Your task to perform on an android device: Search for vegetarian restaurants on Maps Image 0: 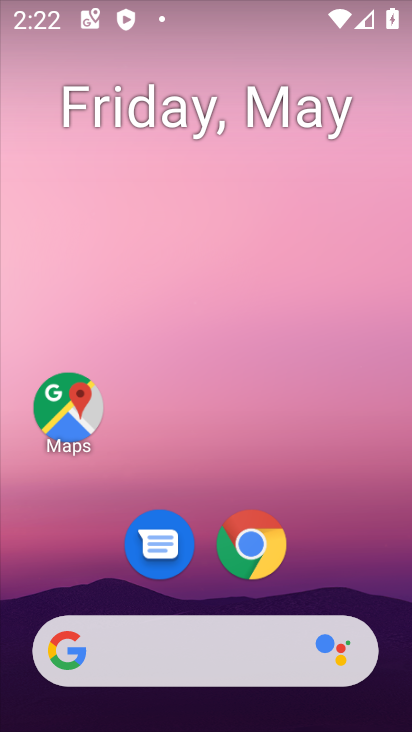
Step 0: click (96, 411)
Your task to perform on an android device: Search for vegetarian restaurants on Maps Image 1: 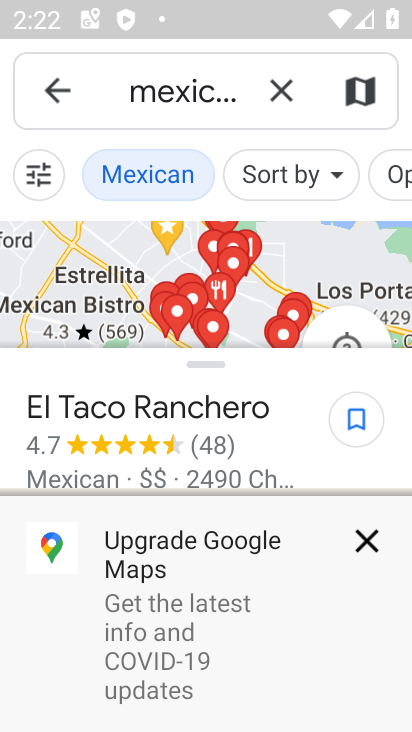
Step 1: click (274, 83)
Your task to perform on an android device: Search for vegetarian restaurants on Maps Image 2: 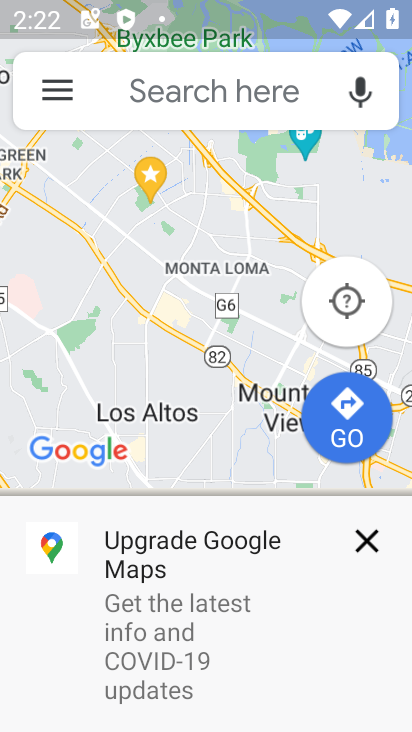
Step 2: click (263, 85)
Your task to perform on an android device: Search for vegetarian restaurants on Maps Image 3: 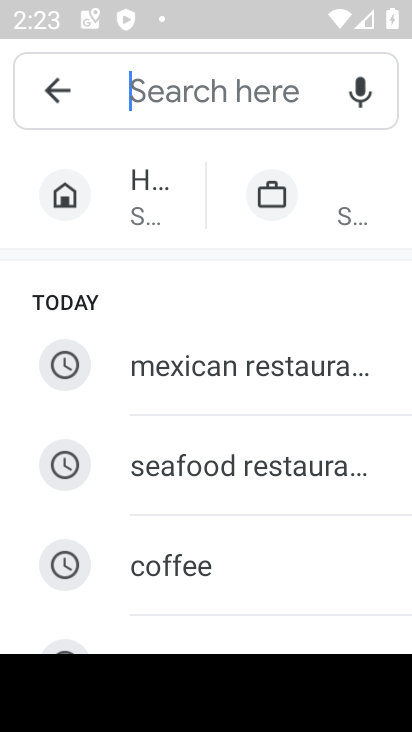
Step 3: type "vegetarian restaurants"
Your task to perform on an android device: Search for vegetarian restaurants on Maps Image 4: 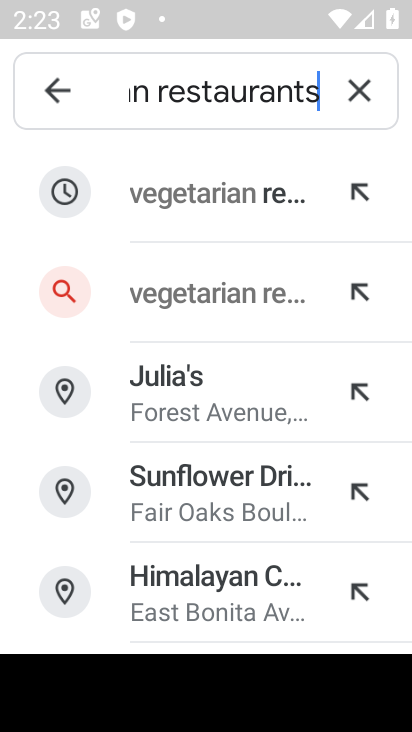
Step 4: click (257, 185)
Your task to perform on an android device: Search for vegetarian restaurants on Maps Image 5: 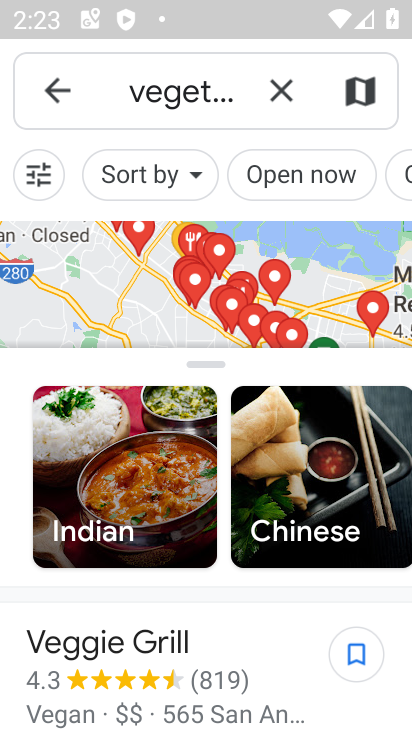
Step 5: task complete